Your task to perform on an android device: turn pop-ups off in chrome Image 0: 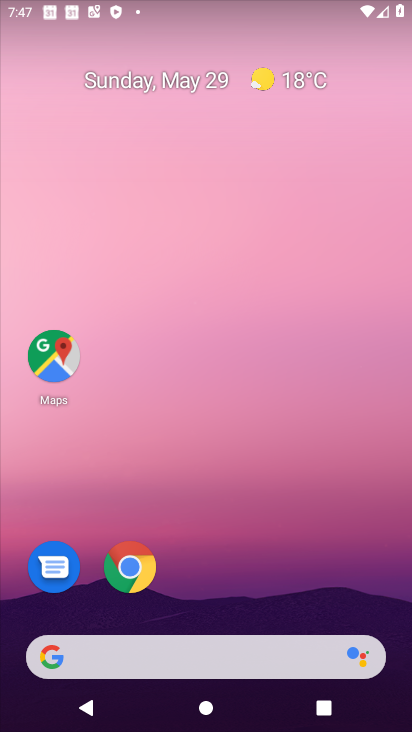
Step 0: click (129, 567)
Your task to perform on an android device: turn pop-ups off in chrome Image 1: 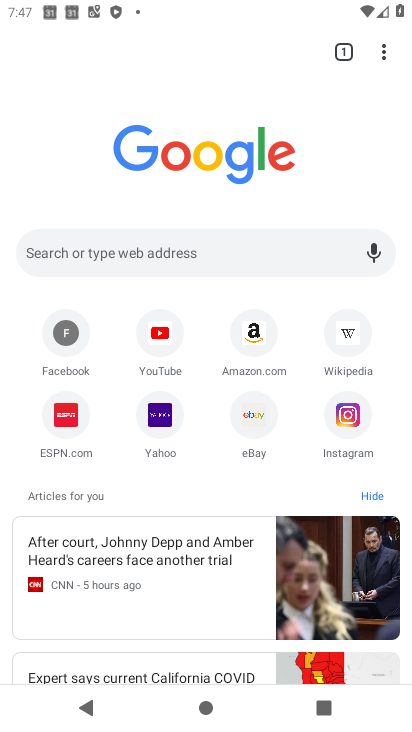
Step 1: click (383, 50)
Your task to perform on an android device: turn pop-ups off in chrome Image 2: 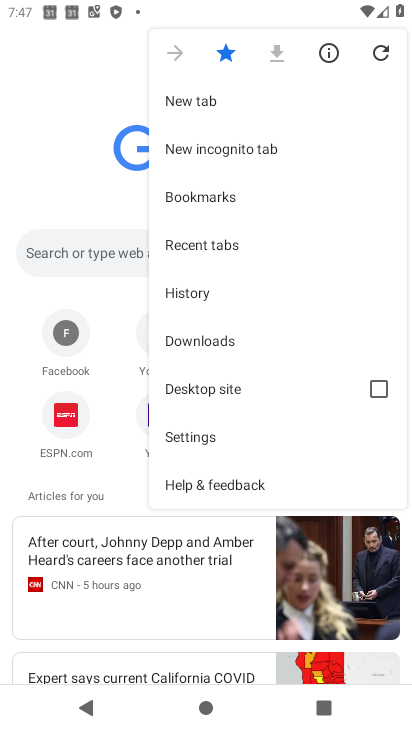
Step 2: click (197, 440)
Your task to perform on an android device: turn pop-ups off in chrome Image 3: 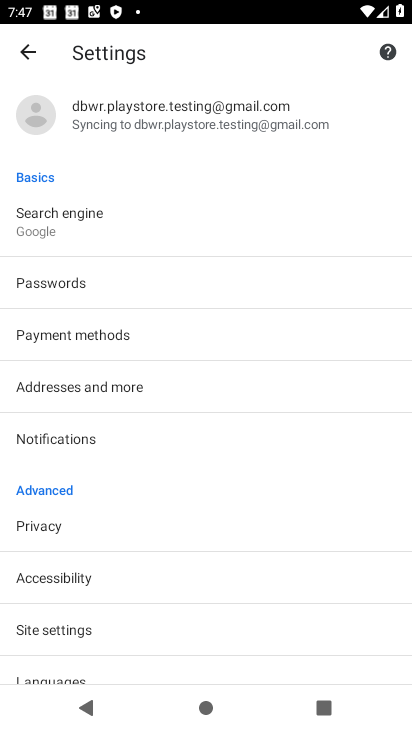
Step 3: drag from (118, 611) to (159, 527)
Your task to perform on an android device: turn pop-ups off in chrome Image 4: 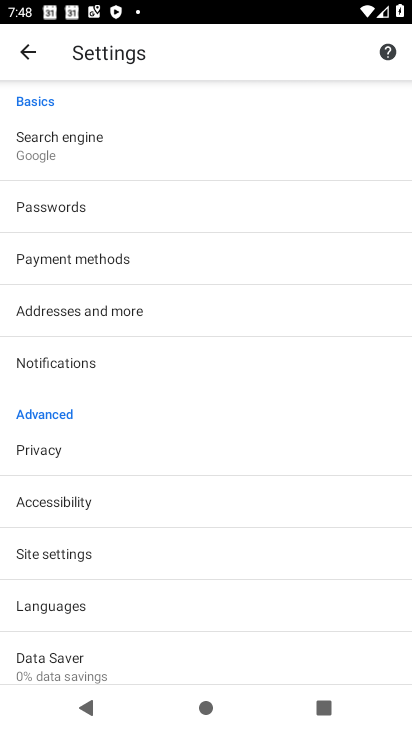
Step 4: drag from (131, 599) to (142, 512)
Your task to perform on an android device: turn pop-ups off in chrome Image 5: 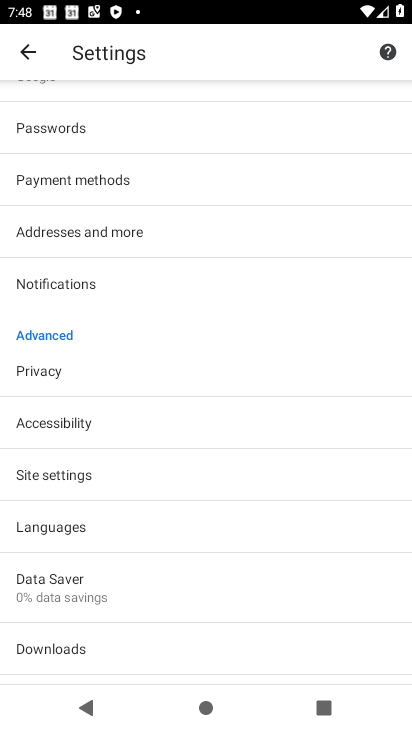
Step 5: click (71, 475)
Your task to perform on an android device: turn pop-ups off in chrome Image 6: 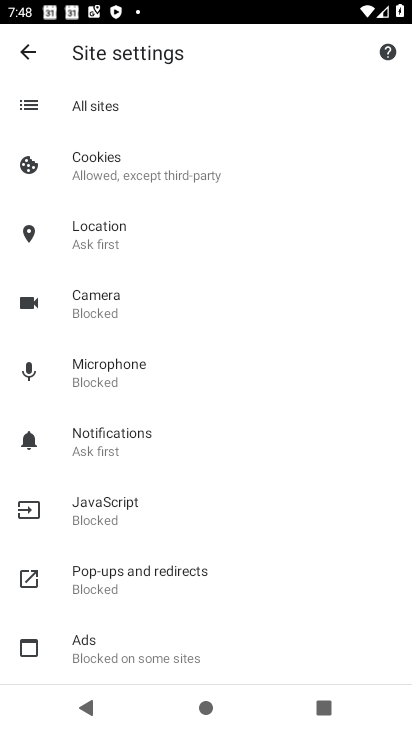
Step 6: click (127, 568)
Your task to perform on an android device: turn pop-ups off in chrome Image 7: 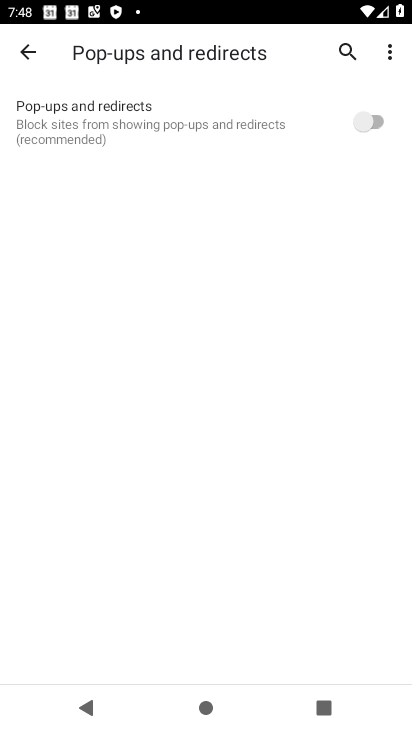
Step 7: task complete